Your task to perform on an android device: Open Google Image 0: 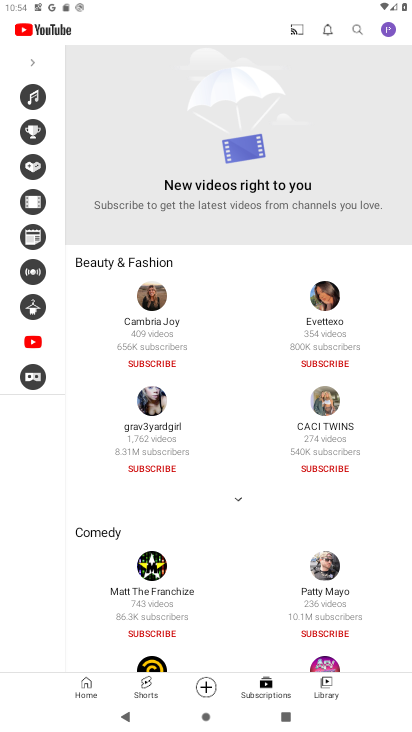
Step 0: press home button
Your task to perform on an android device: Open Google Image 1: 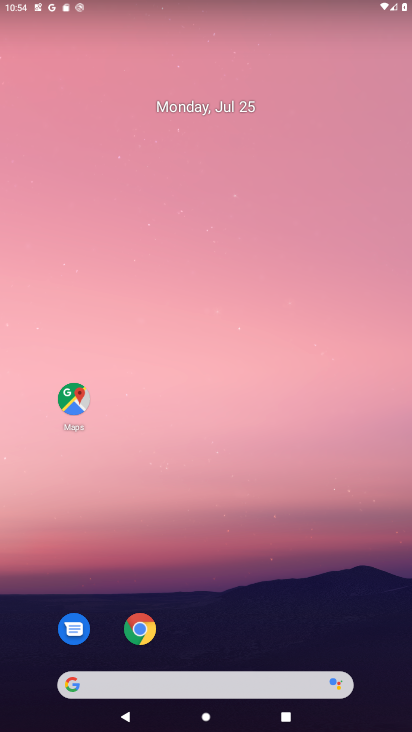
Step 1: click (158, 690)
Your task to perform on an android device: Open Google Image 2: 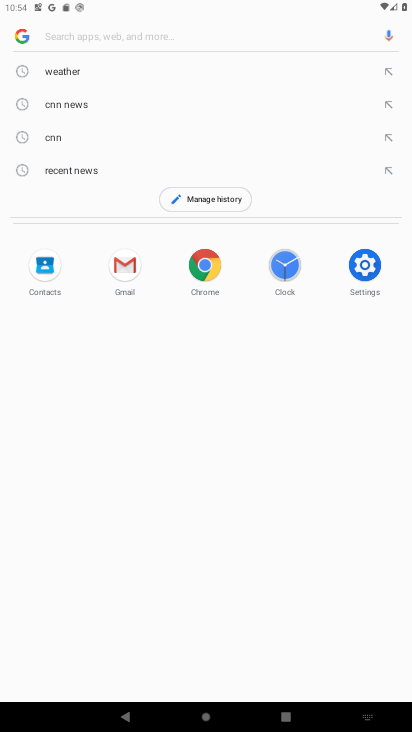
Step 2: task complete